Your task to perform on an android device: open a bookmark in the chrome app Image 0: 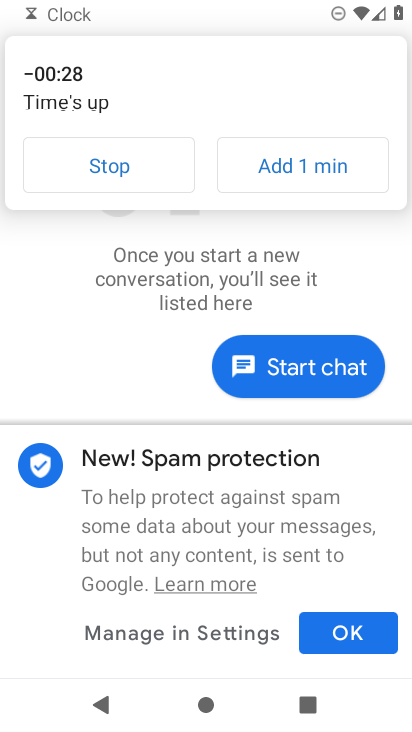
Step 0: press home button
Your task to perform on an android device: open a bookmark in the chrome app Image 1: 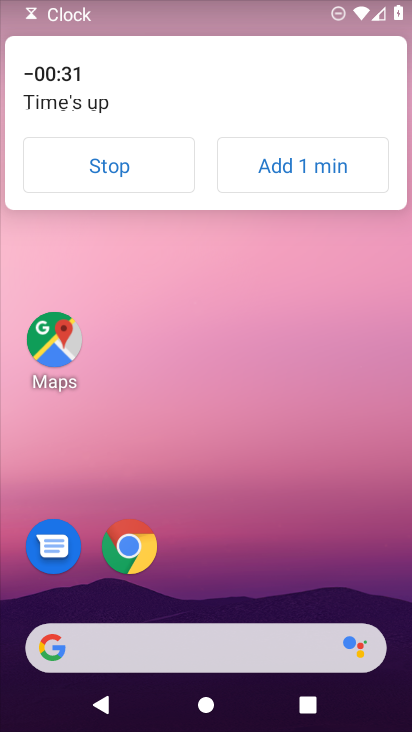
Step 1: click (134, 545)
Your task to perform on an android device: open a bookmark in the chrome app Image 2: 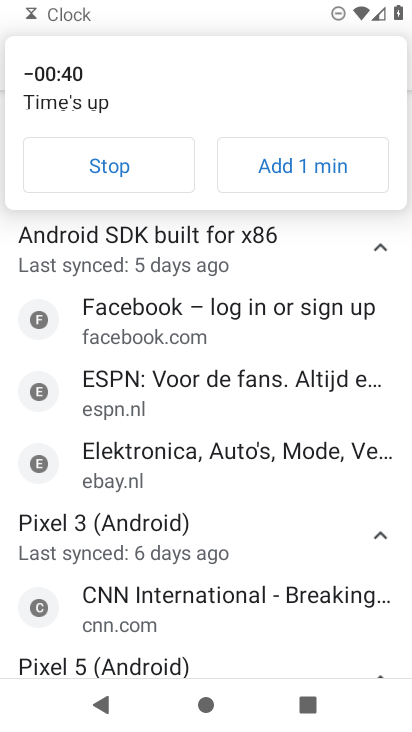
Step 2: click (106, 158)
Your task to perform on an android device: open a bookmark in the chrome app Image 3: 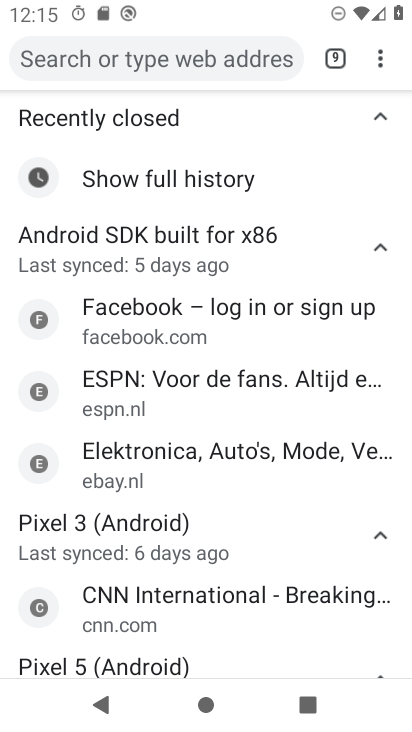
Step 3: click (384, 63)
Your task to perform on an android device: open a bookmark in the chrome app Image 4: 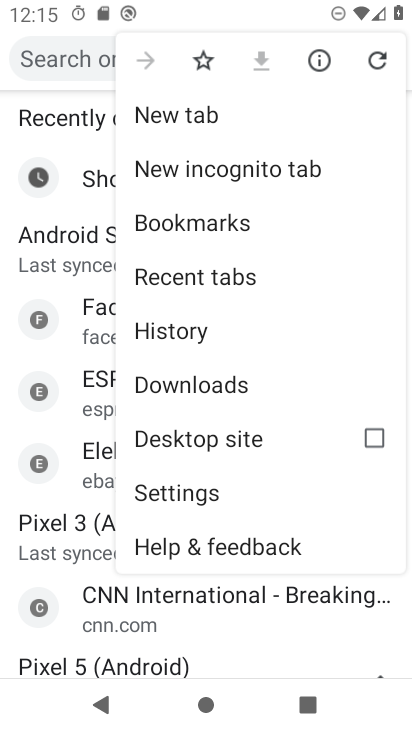
Step 4: click (166, 219)
Your task to perform on an android device: open a bookmark in the chrome app Image 5: 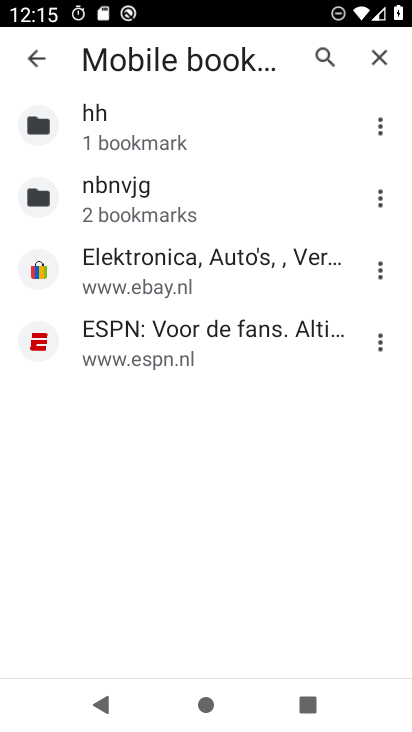
Step 5: click (123, 323)
Your task to perform on an android device: open a bookmark in the chrome app Image 6: 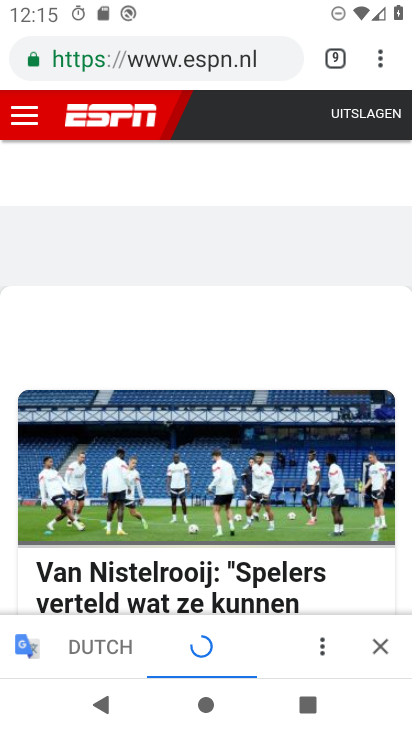
Step 6: task complete